Your task to perform on an android device: turn on improve location accuracy Image 0: 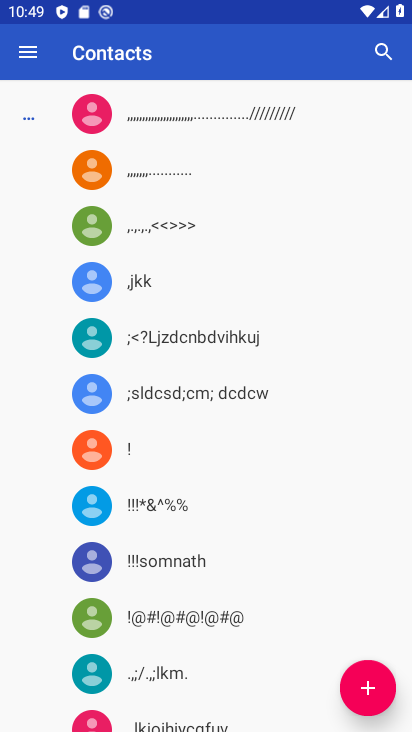
Step 0: press back button
Your task to perform on an android device: turn on improve location accuracy Image 1: 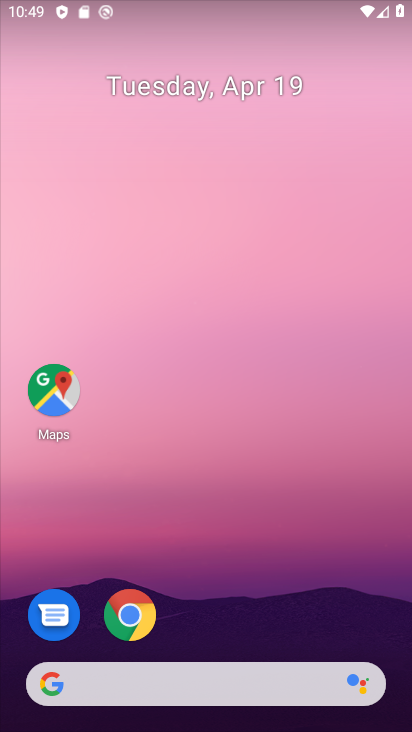
Step 1: drag from (201, 659) to (194, 306)
Your task to perform on an android device: turn on improve location accuracy Image 2: 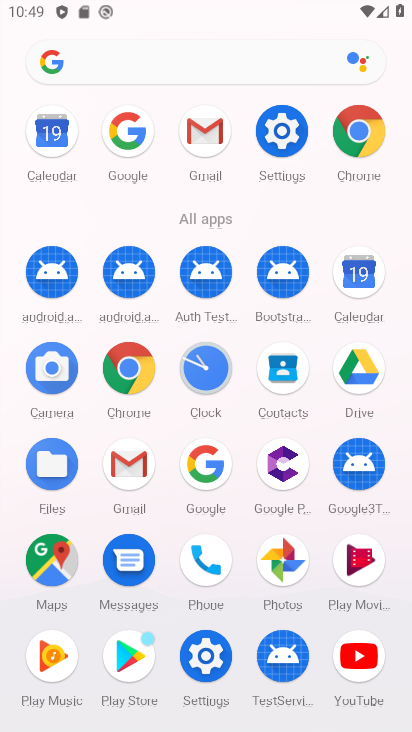
Step 2: click (272, 129)
Your task to perform on an android device: turn on improve location accuracy Image 3: 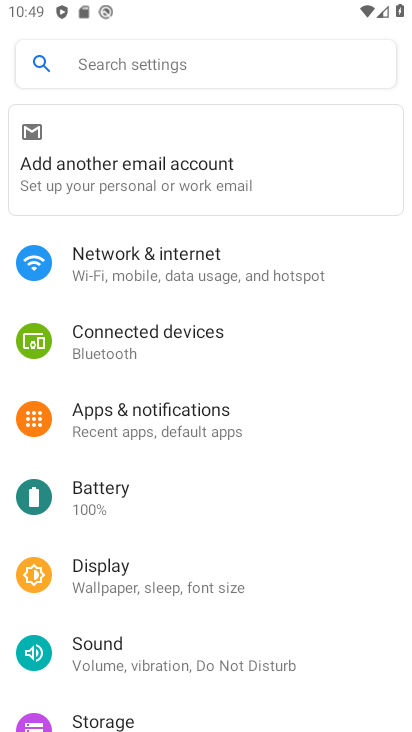
Step 3: drag from (178, 708) to (139, 342)
Your task to perform on an android device: turn on improve location accuracy Image 4: 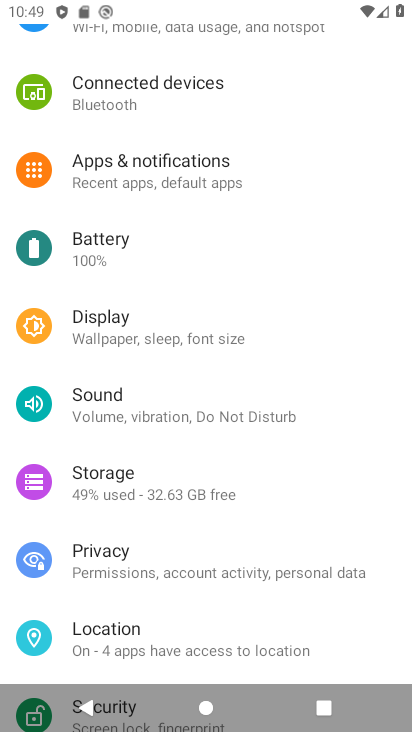
Step 4: drag from (210, 616) to (196, 323)
Your task to perform on an android device: turn on improve location accuracy Image 5: 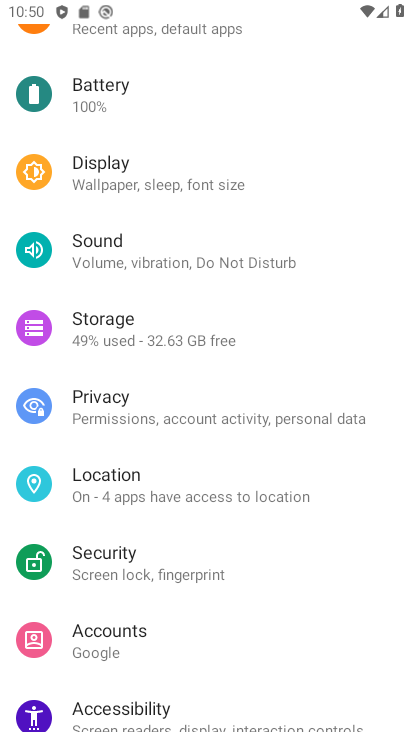
Step 5: click (109, 480)
Your task to perform on an android device: turn on improve location accuracy Image 6: 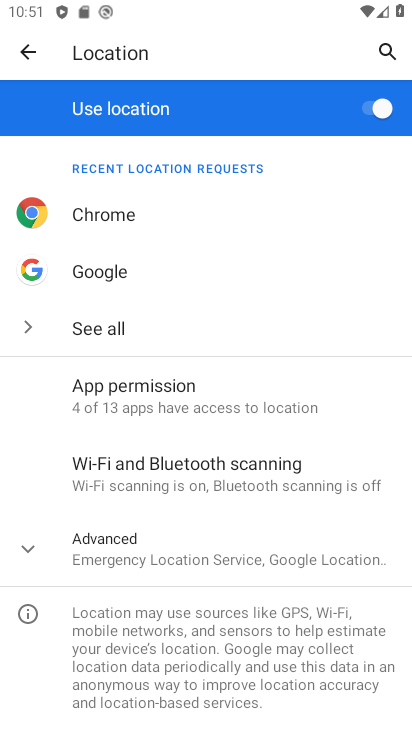
Step 6: click (140, 542)
Your task to perform on an android device: turn on improve location accuracy Image 7: 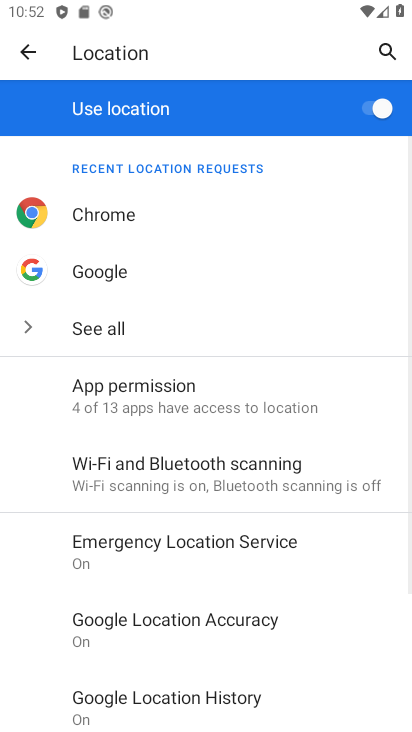
Step 7: drag from (174, 663) to (211, 409)
Your task to perform on an android device: turn on improve location accuracy Image 8: 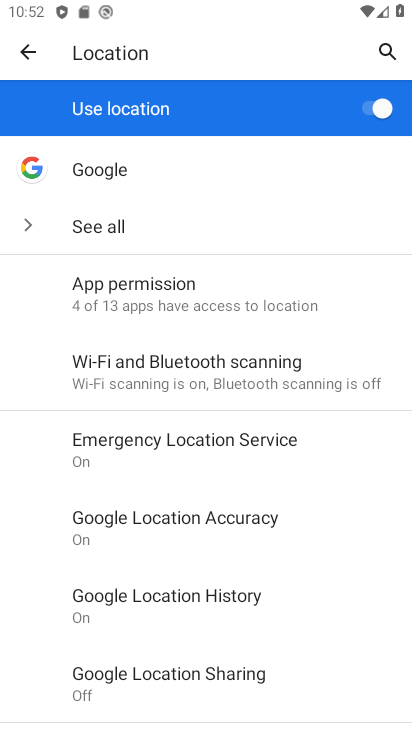
Step 8: drag from (211, 711) to (232, 459)
Your task to perform on an android device: turn on improve location accuracy Image 9: 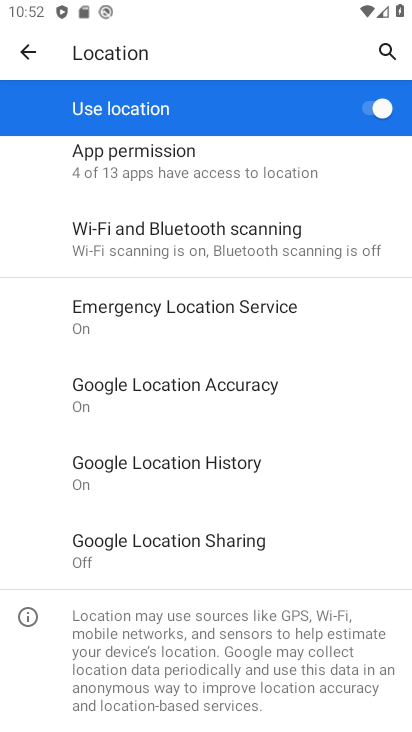
Step 9: click (219, 378)
Your task to perform on an android device: turn on improve location accuracy Image 10: 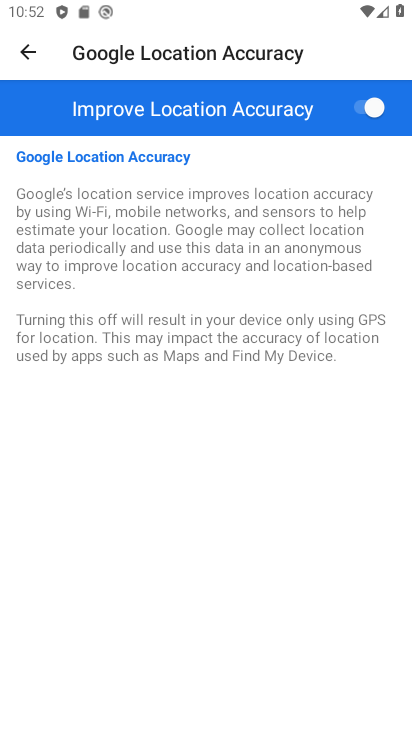
Step 10: task complete